Your task to perform on an android device: Go to location settings Image 0: 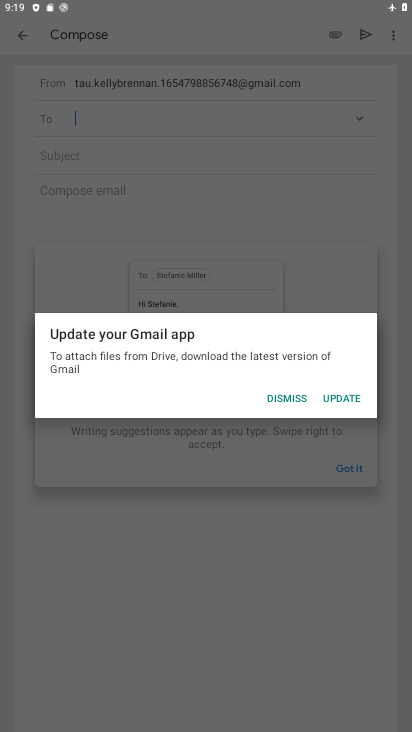
Step 0: press home button
Your task to perform on an android device: Go to location settings Image 1: 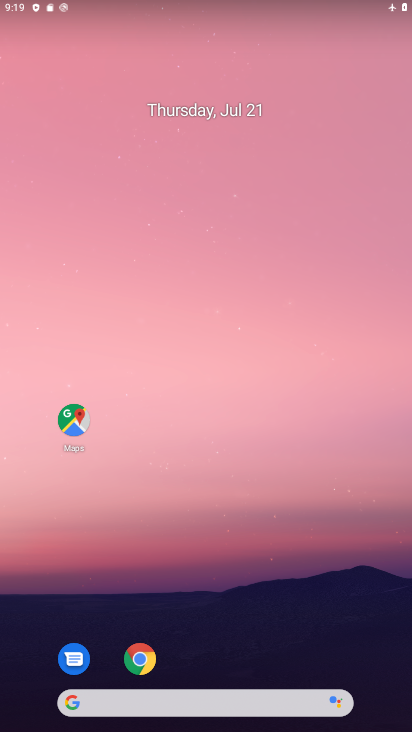
Step 1: drag from (200, 670) to (151, 68)
Your task to perform on an android device: Go to location settings Image 2: 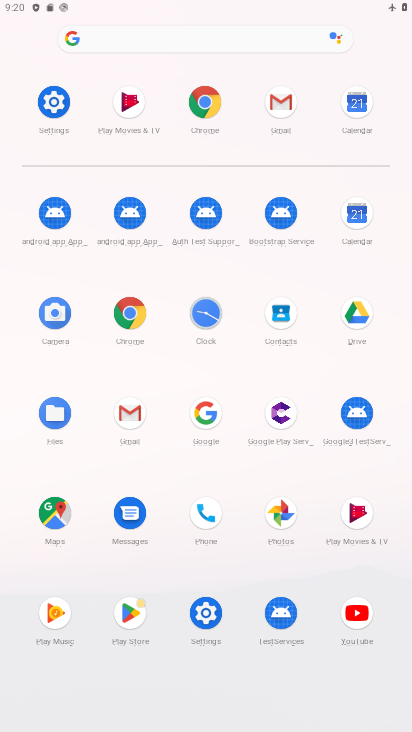
Step 2: click (198, 600)
Your task to perform on an android device: Go to location settings Image 3: 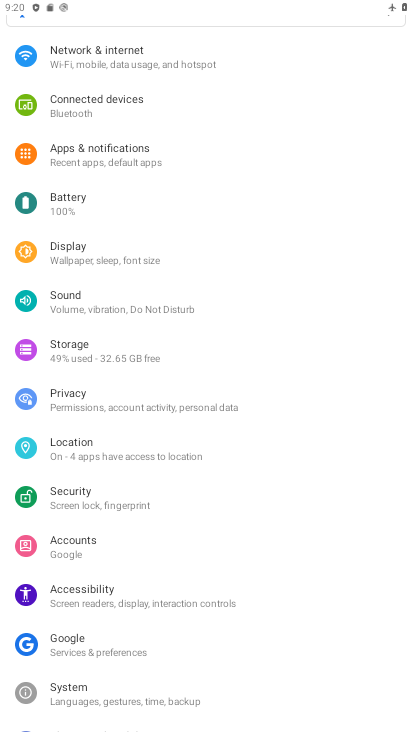
Step 3: click (73, 442)
Your task to perform on an android device: Go to location settings Image 4: 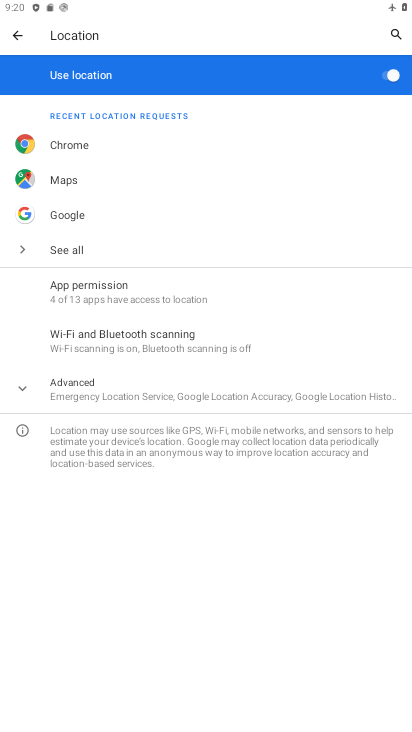
Step 4: click (118, 382)
Your task to perform on an android device: Go to location settings Image 5: 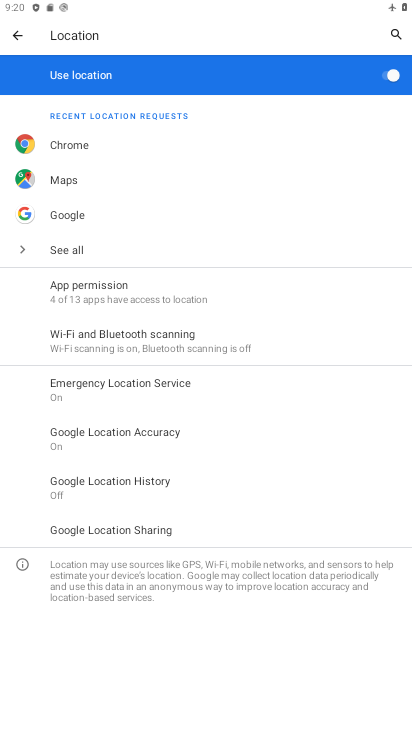
Step 5: task complete